Your task to perform on an android device: change the clock display to show seconds Image 0: 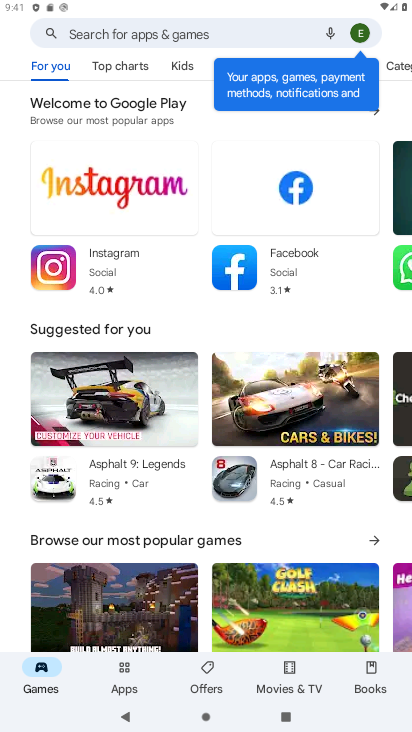
Step 0: press home button
Your task to perform on an android device: change the clock display to show seconds Image 1: 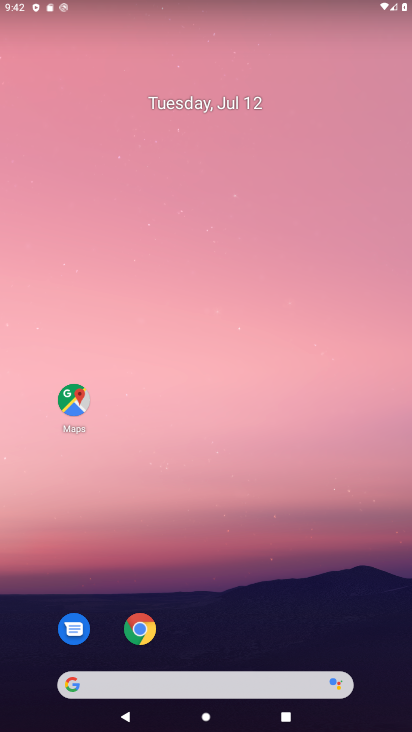
Step 1: drag from (174, 680) to (247, 109)
Your task to perform on an android device: change the clock display to show seconds Image 2: 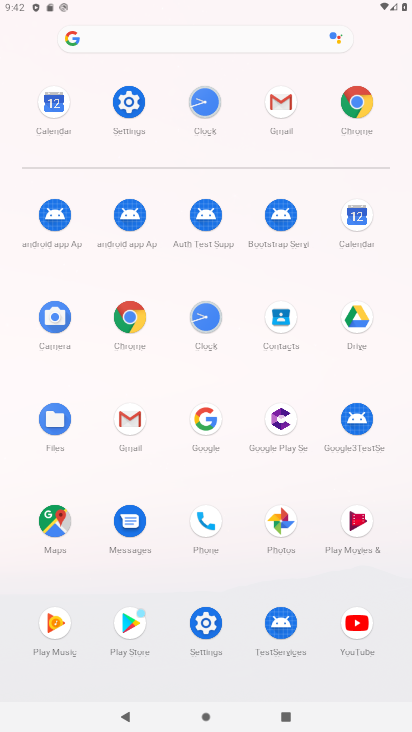
Step 2: click (202, 310)
Your task to perform on an android device: change the clock display to show seconds Image 3: 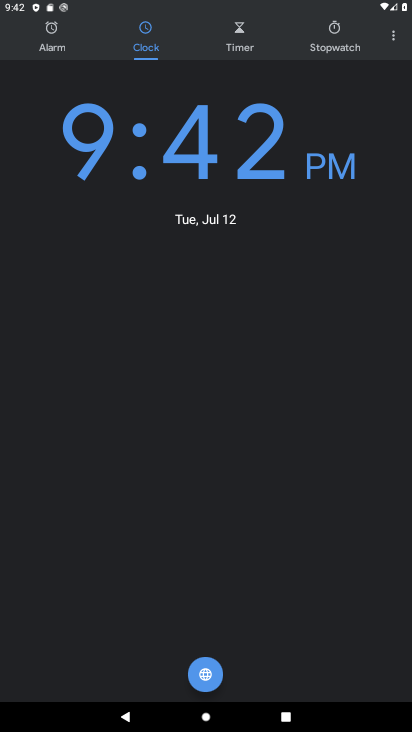
Step 3: click (390, 35)
Your task to perform on an android device: change the clock display to show seconds Image 4: 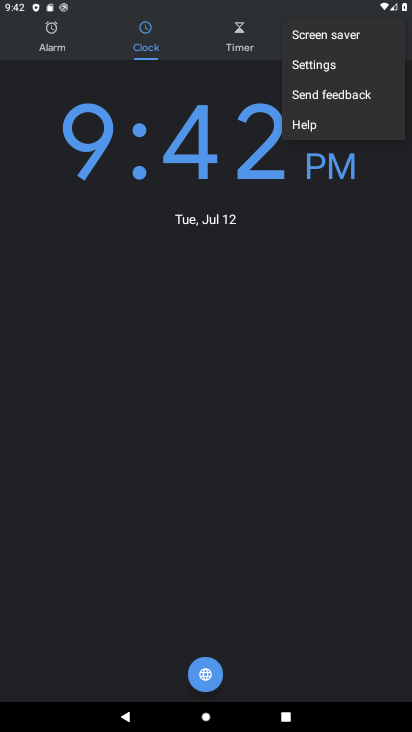
Step 4: click (346, 71)
Your task to perform on an android device: change the clock display to show seconds Image 5: 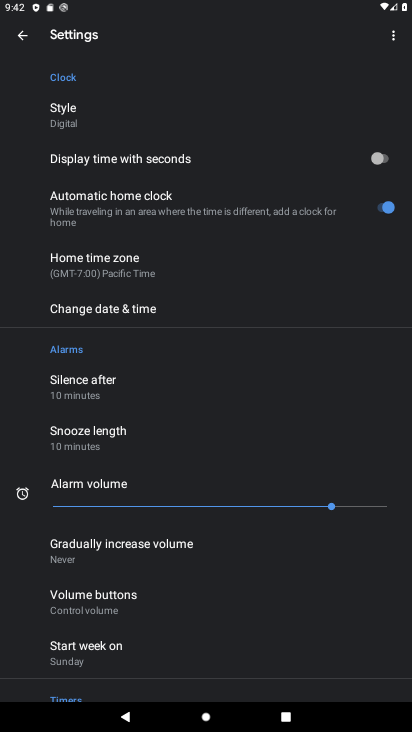
Step 5: click (378, 153)
Your task to perform on an android device: change the clock display to show seconds Image 6: 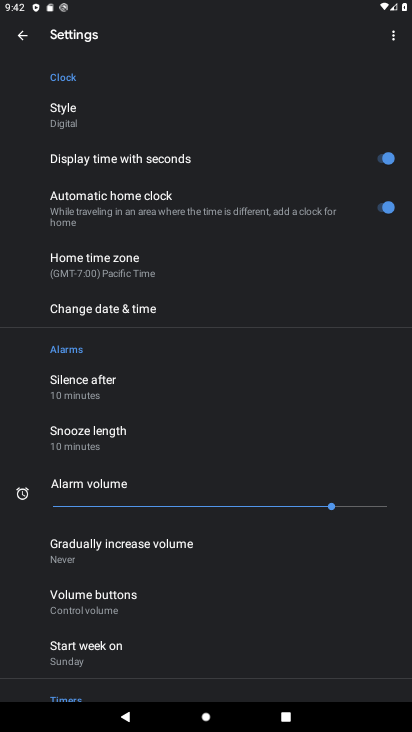
Step 6: task complete